Your task to perform on an android device: Show me popular videos on Youtube Image 0: 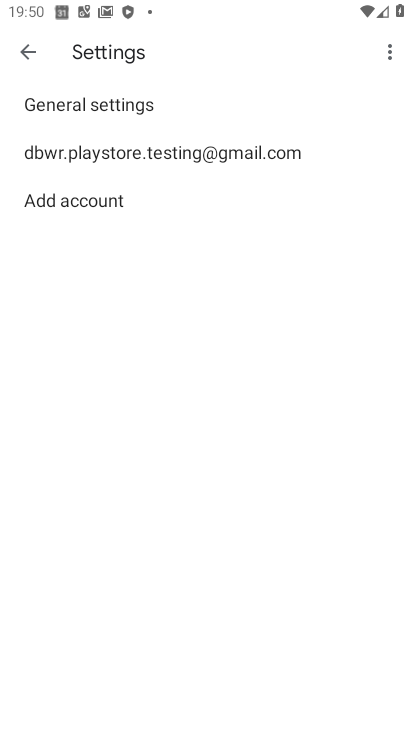
Step 0: press home button
Your task to perform on an android device: Show me popular videos on Youtube Image 1: 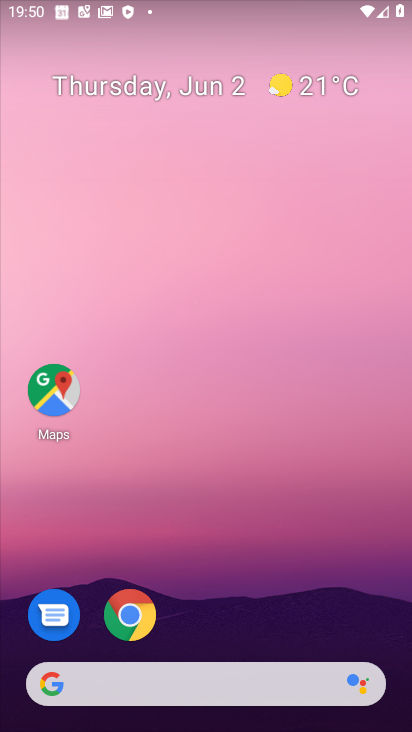
Step 1: drag from (261, 623) to (199, 196)
Your task to perform on an android device: Show me popular videos on Youtube Image 2: 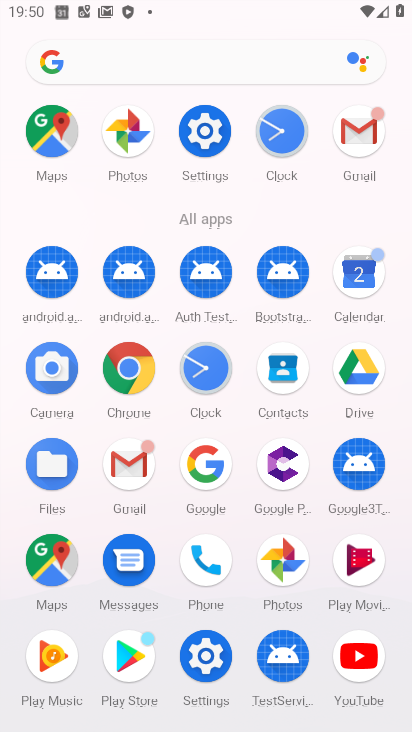
Step 2: click (378, 664)
Your task to perform on an android device: Show me popular videos on Youtube Image 3: 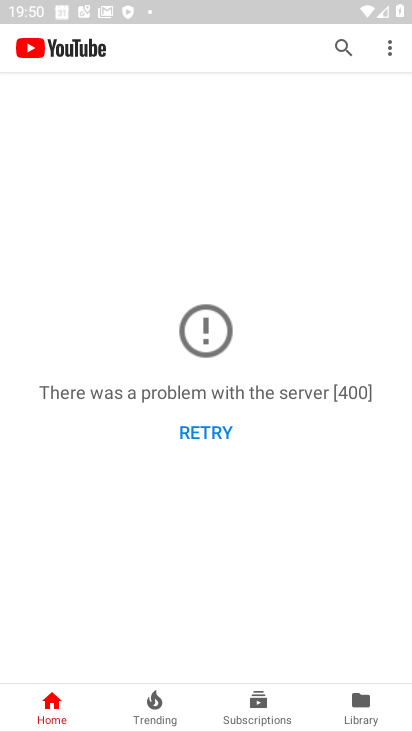
Step 3: task complete